Your task to perform on an android device: Show me productivity apps on the Play Store Image 0: 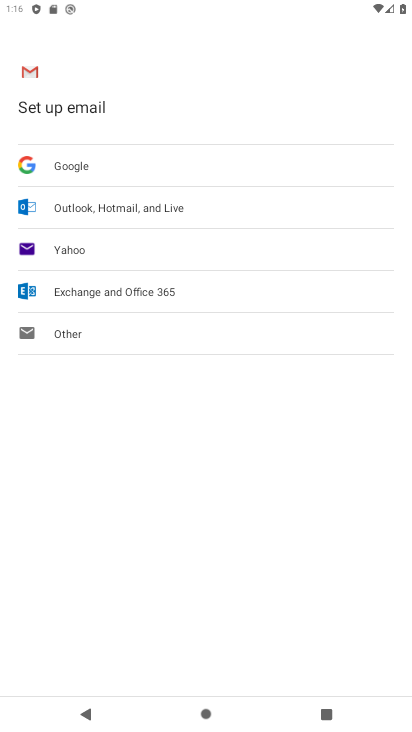
Step 0: press home button
Your task to perform on an android device: Show me productivity apps on the Play Store Image 1: 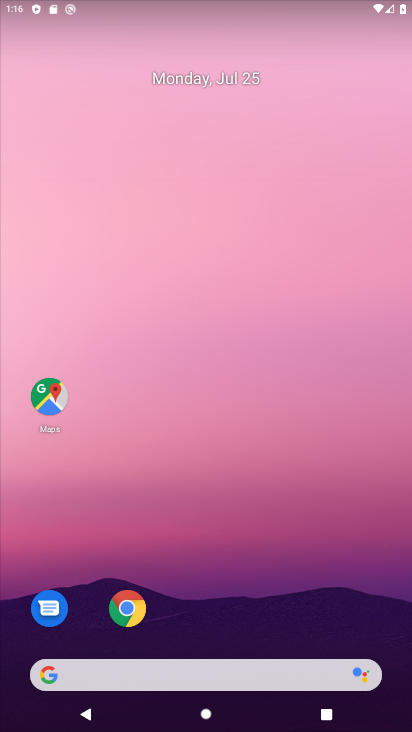
Step 1: drag from (175, 666) to (215, 132)
Your task to perform on an android device: Show me productivity apps on the Play Store Image 2: 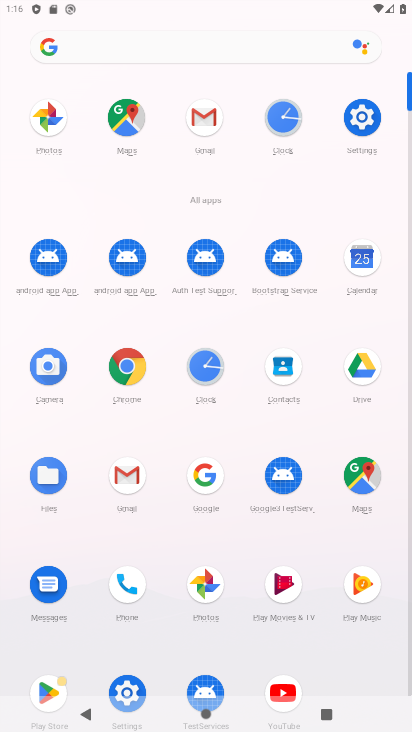
Step 2: click (53, 683)
Your task to perform on an android device: Show me productivity apps on the Play Store Image 3: 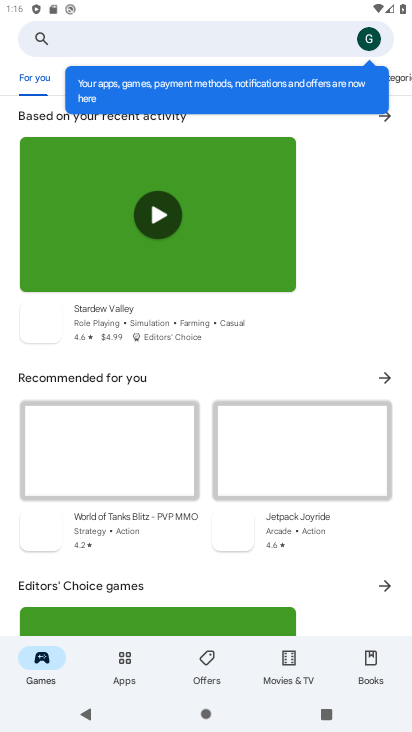
Step 3: click (128, 656)
Your task to perform on an android device: Show me productivity apps on the Play Store Image 4: 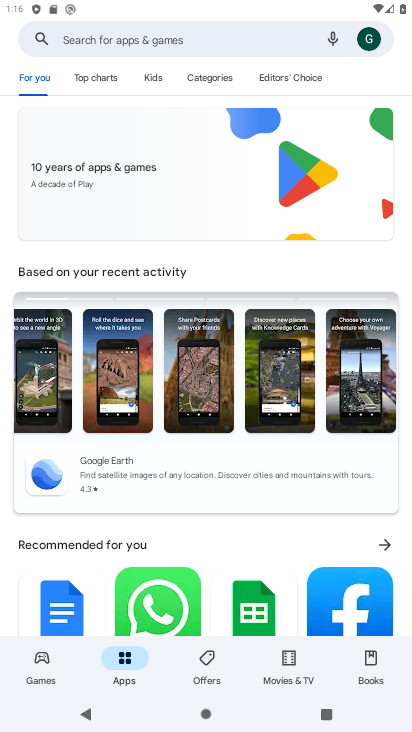
Step 4: click (218, 75)
Your task to perform on an android device: Show me productivity apps on the Play Store Image 5: 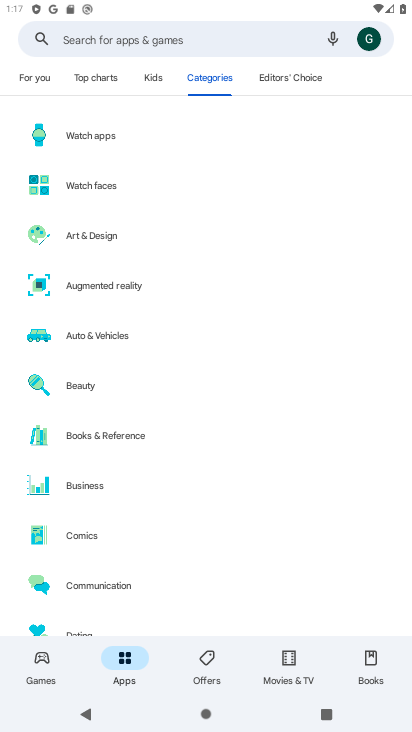
Step 5: drag from (104, 518) to (147, 388)
Your task to perform on an android device: Show me productivity apps on the Play Store Image 6: 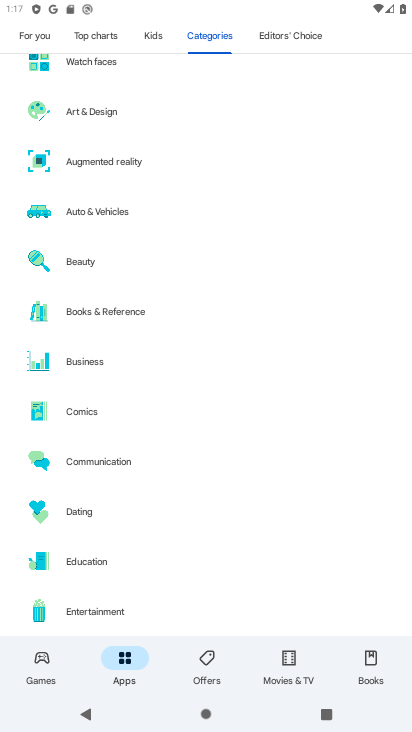
Step 6: drag from (85, 532) to (136, 416)
Your task to perform on an android device: Show me productivity apps on the Play Store Image 7: 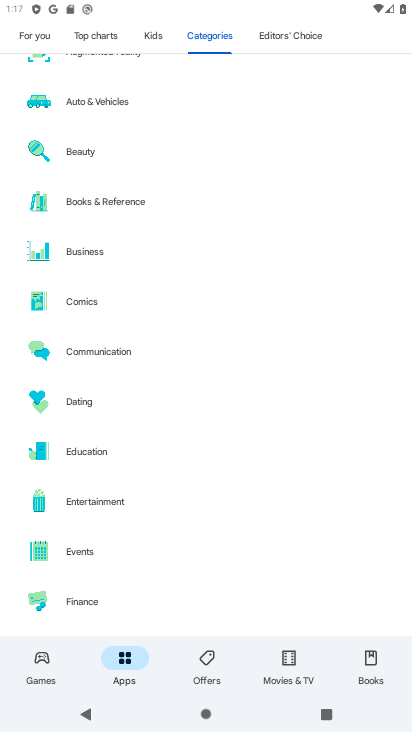
Step 7: drag from (84, 516) to (140, 427)
Your task to perform on an android device: Show me productivity apps on the Play Store Image 8: 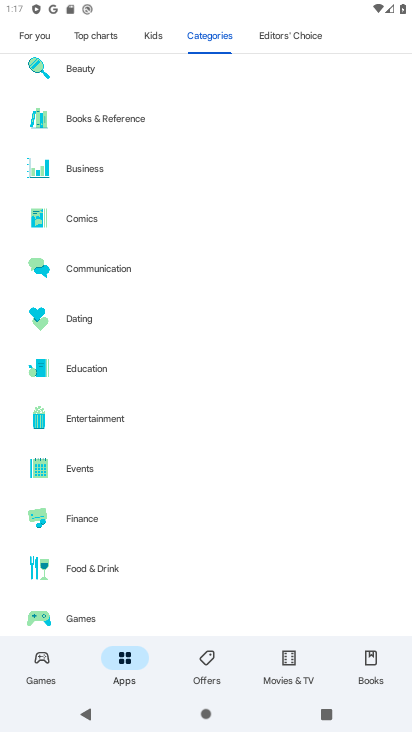
Step 8: drag from (93, 492) to (144, 418)
Your task to perform on an android device: Show me productivity apps on the Play Store Image 9: 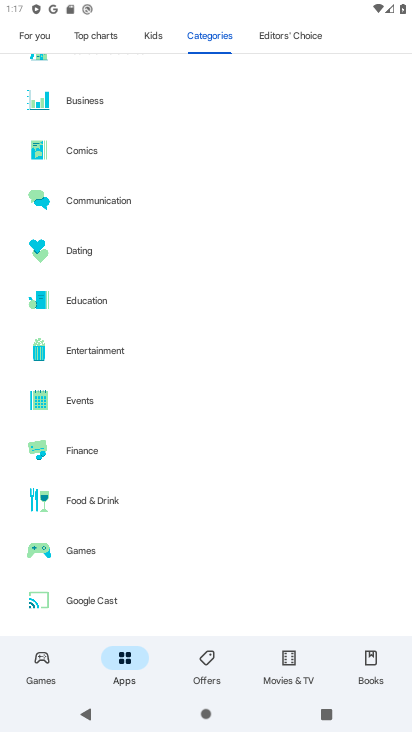
Step 9: drag from (75, 518) to (128, 447)
Your task to perform on an android device: Show me productivity apps on the Play Store Image 10: 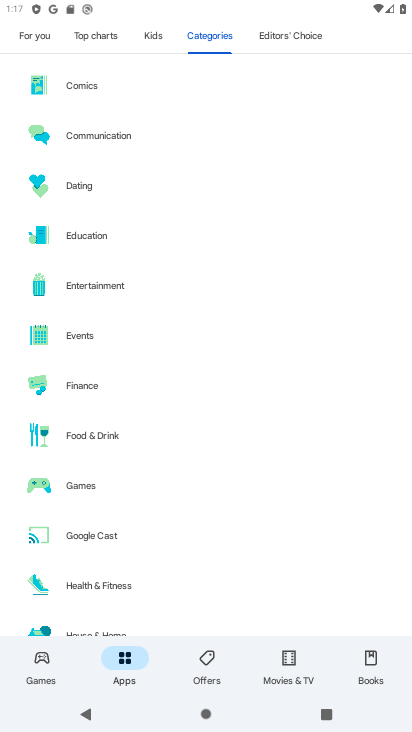
Step 10: drag from (87, 517) to (132, 448)
Your task to perform on an android device: Show me productivity apps on the Play Store Image 11: 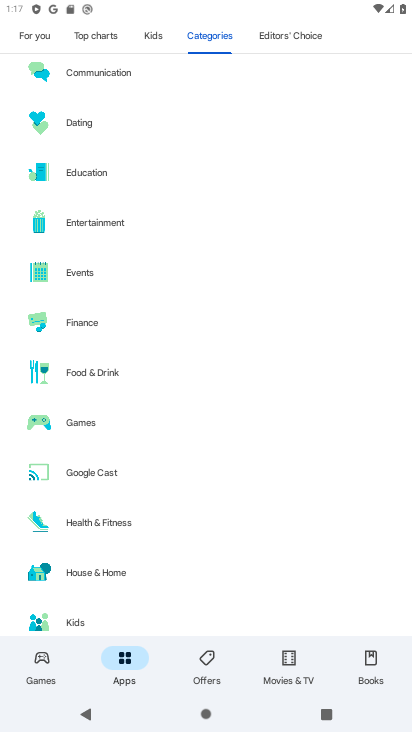
Step 11: drag from (74, 546) to (133, 467)
Your task to perform on an android device: Show me productivity apps on the Play Store Image 12: 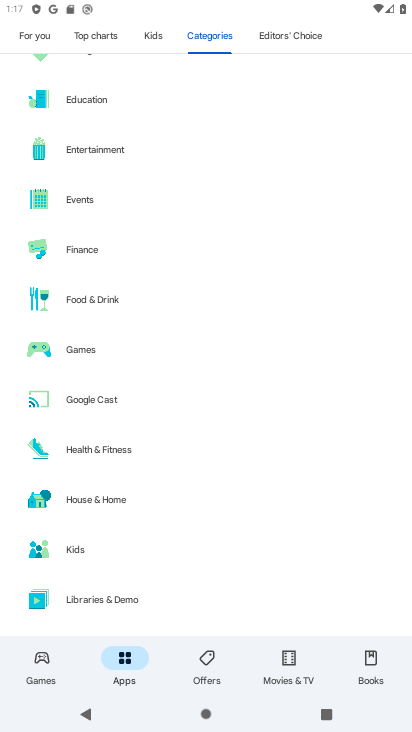
Step 12: drag from (89, 531) to (132, 465)
Your task to perform on an android device: Show me productivity apps on the Play Store Image 13: 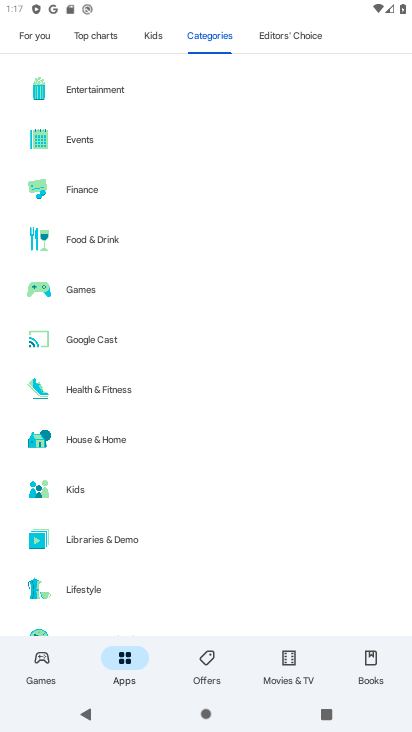
Step 13: drag from (83, 514) to (132, 446)
Your task to perform on an android device: Show me productivity apps on the Play Store Image 14: 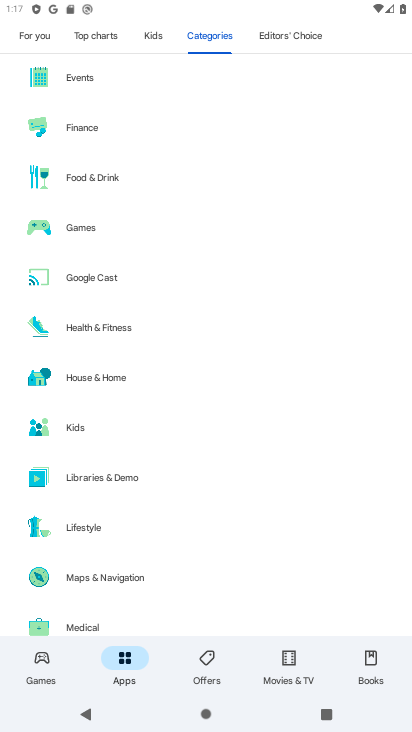
Step 14: drag from (85, 503) to (137, 442)
Your task to perform on an android device: Show me productivity apps on the Play Store Image 15: 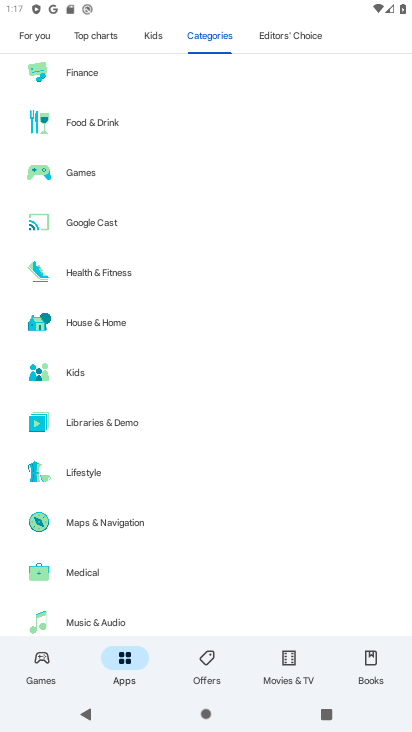
Step 15: drag from (65, 550) to (128, 462)
Your task to perform on an android device: Show me productivity apps on the Play Store Image 16: 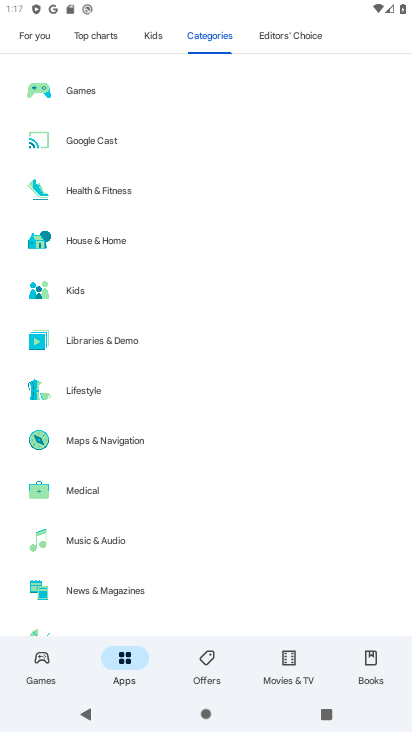
Step 16: drag from (92, 525) to (126, 470)
Your task to perform on an android device: Show me productivity apps on the Play Store Image 17: 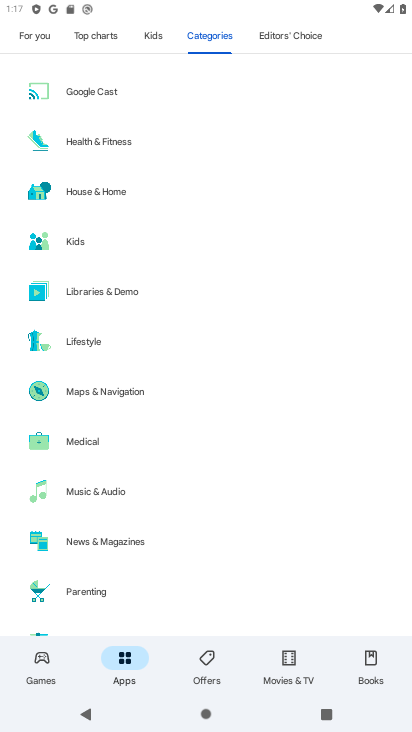
Step 17: drag from (76, 560) to (145, 462)
Your task to perform on an android device: Show me productivity apps on the Play Store Image 18: 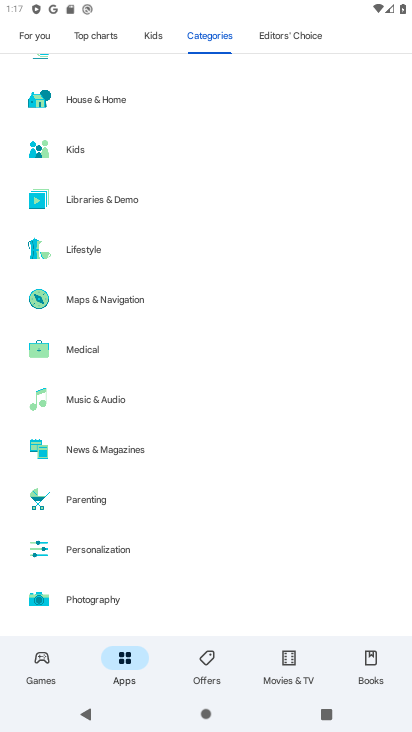
Step 18: drag from (82, 570) to (140, 475)
Your task to perform on an android device: Show me productivity apps on the Play Store Image 19: 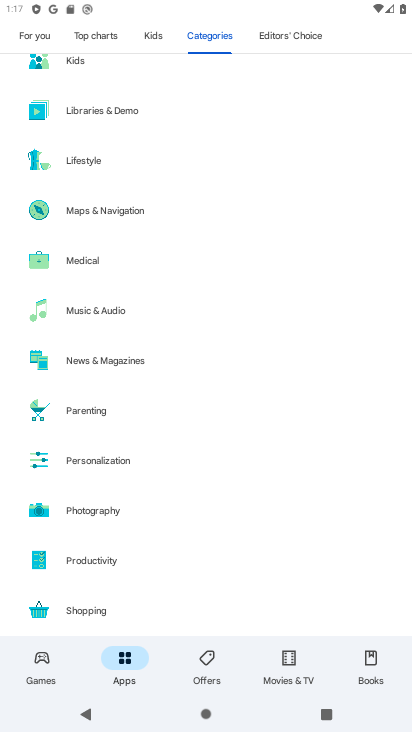
Step 19: click (96, 564)
Your task to perform on an android device: Show me productivity apps on the Play Store Image 20: 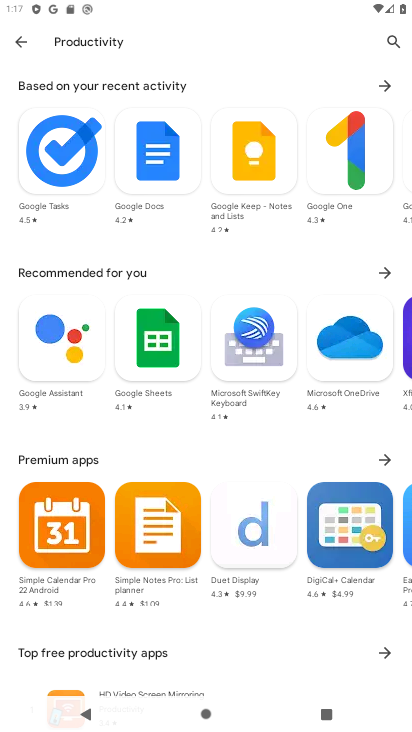
Step 20: task complete